Your task to perform on an android device: uninstall "Facebook Messenger" Image 0: 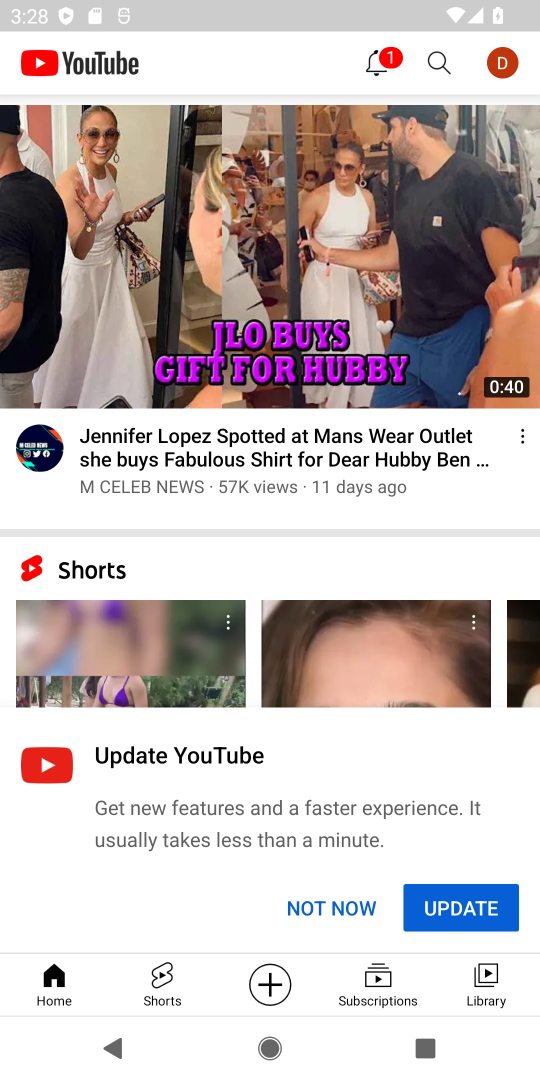
Step 0: press home button
Your task to perform on an android device: uninstall "Facebook Messenger" Image 1: 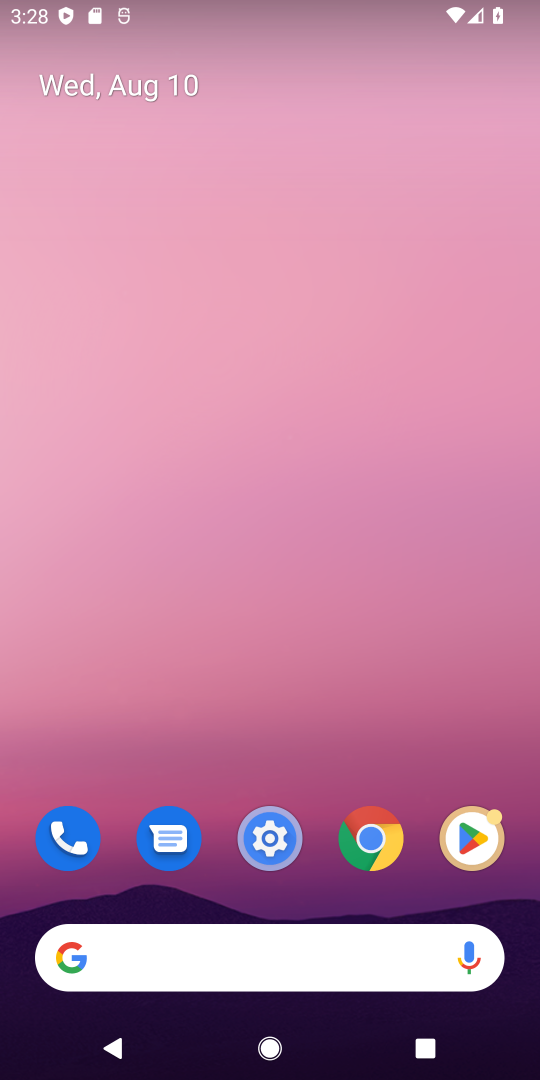
Step 1: click (473, 829)
Your task to perform on an android device: uninstall "Facebook Messenger" Image 2: 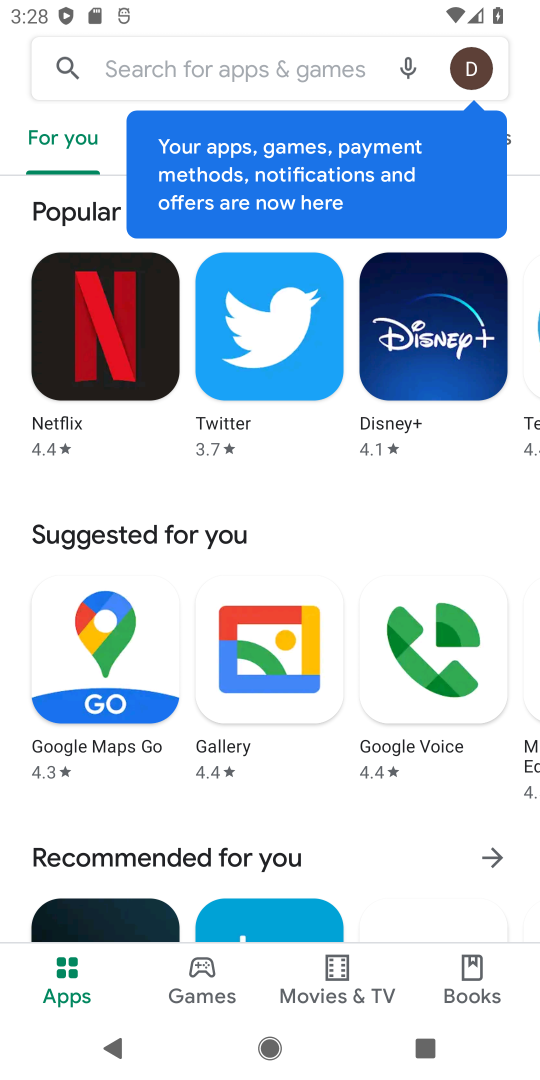
Step 2: click (257, 66)
Your task to perform on an android device: uninstall "Facebook Messenger" Image 3: 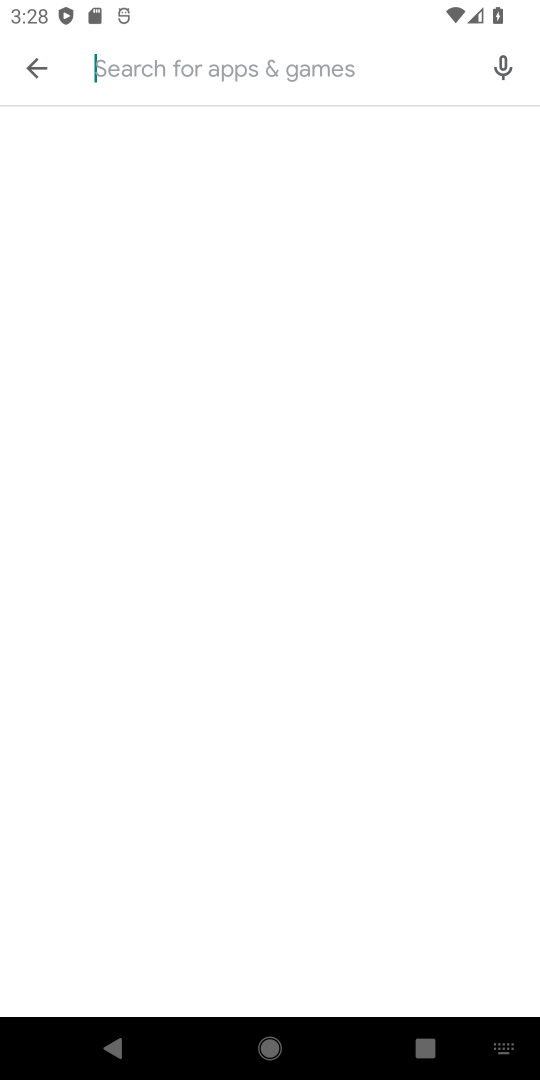
Step 3: type "Facebook Messenger"
Your task to perform on an android device: uninstall "Facebook Messenger" Image 4: 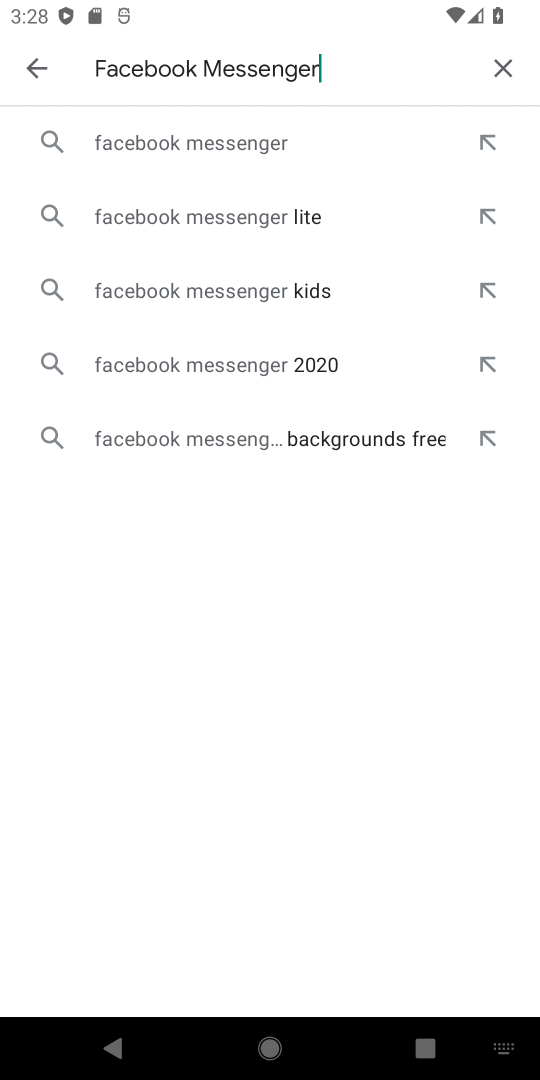
Step 4: click (257, 145)
Your task to perform on an android device: uninstall "Facebook Messenger" Image 5: 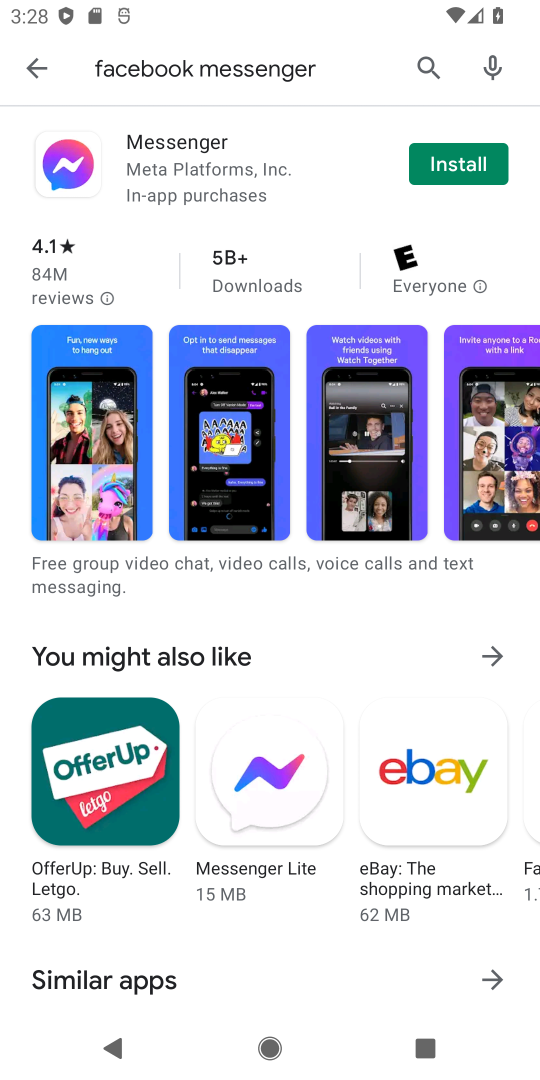
Step 5: task complete